Your task to perform on an android device: choose inbox layout in the gmail app Image 0: 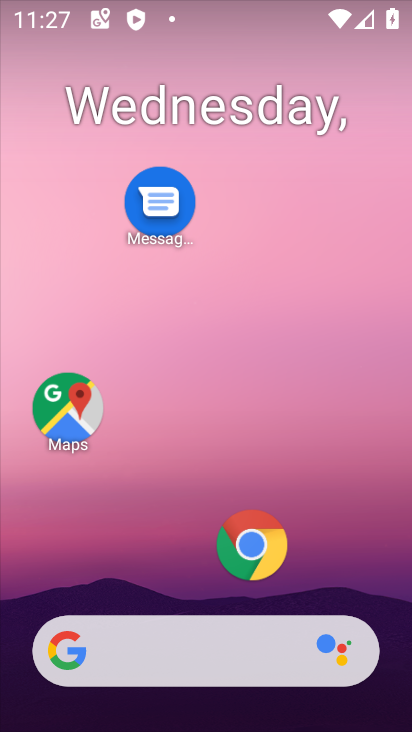
Step 0: drag from (181, 576) to (240, 157)
Your task to perform on an android device: choose inbox layout in the gmail app Image 1: 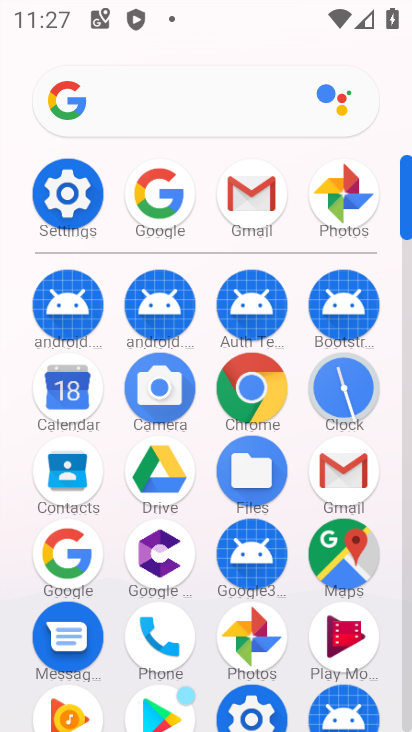
Step 1: click (248, 197)
Your task to perform on an android device: choose inbox layout in the gmail app Image 2: 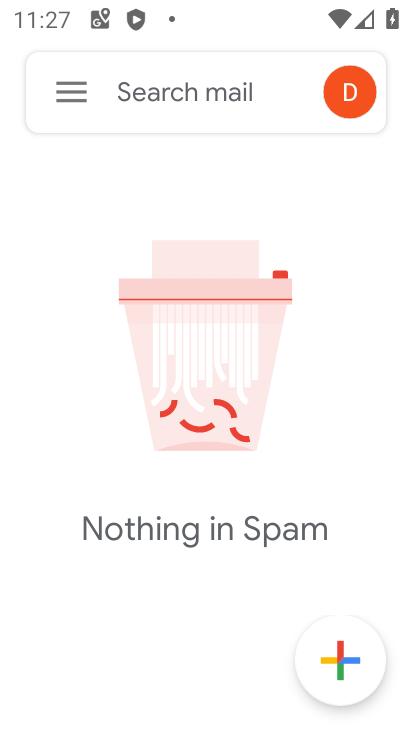
Step 2: click (53, 93)
Your task to perform on an android device: choose inbox layout in the gmail app Image 3: 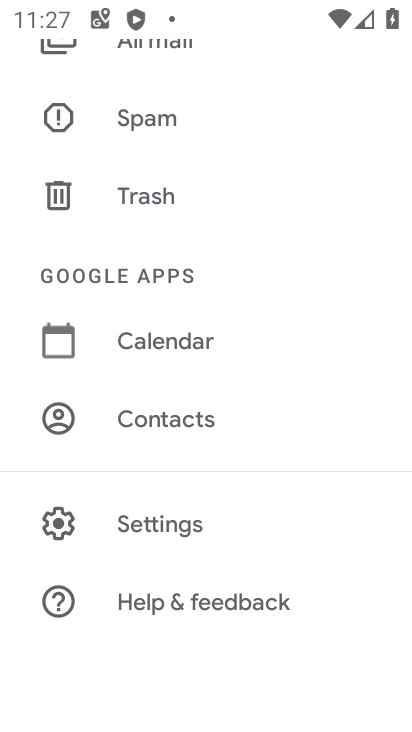
Step 3: click (181, 518)
Your task to perform on an android device: choose inbox layout in the gmail app Image 4: 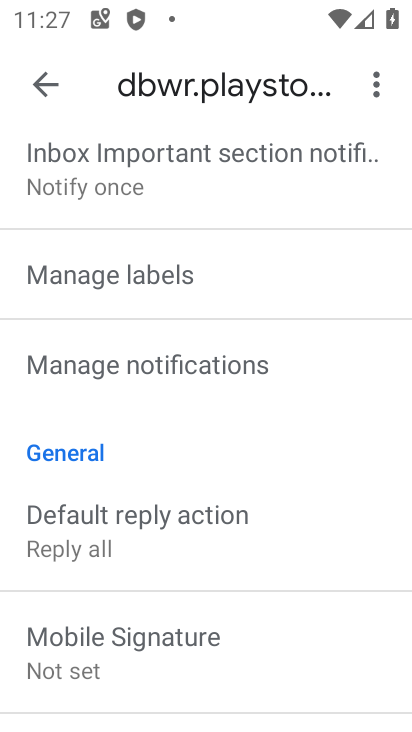
Step 4: drag from (182, 224) to (215, 544)
Your task to perform on an android device: choose inbox layout in the gmail app Image 5: 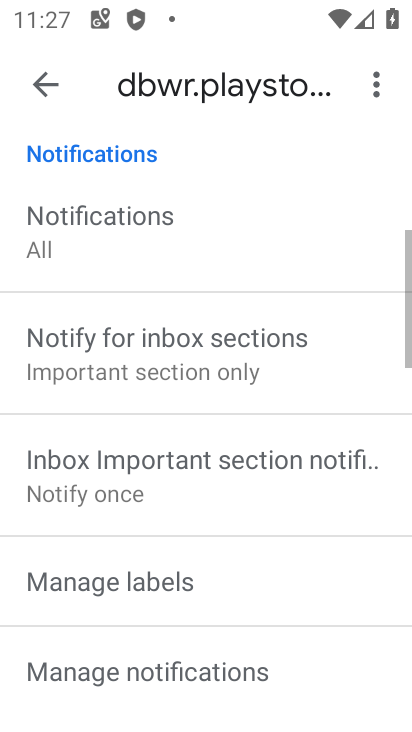
Step 5: drag from (179, 313) to (203, 548)
Your task to perform on an android device: choose inbox layout in the gmail app Image 6: 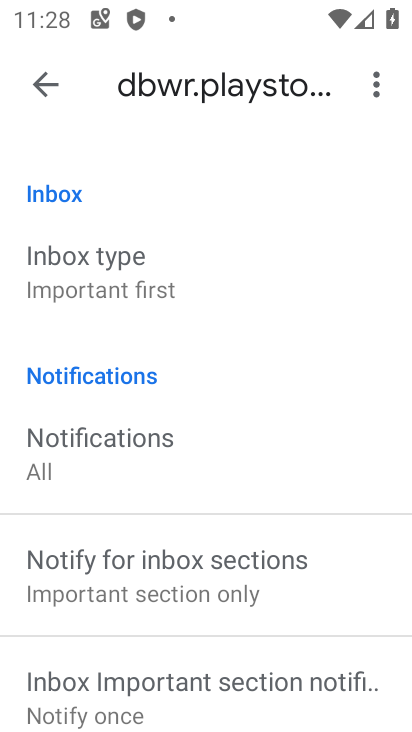
Step 6: drag from (195, 251) to (224, 467)
Your task to perform on an android device: choose inbox layout in the gmail app Image 7: 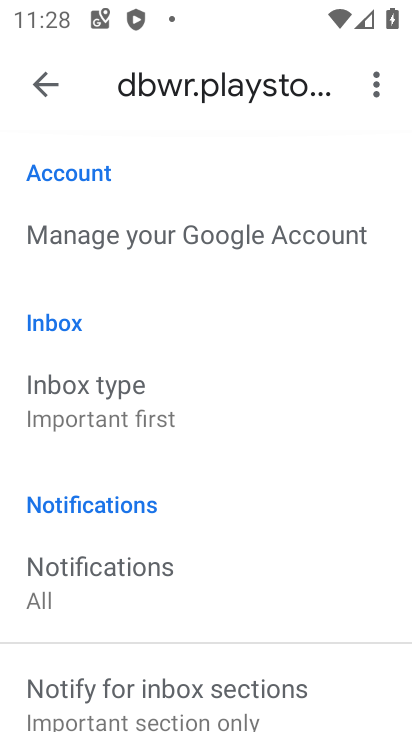
Step 7: click (109, 389)
Your task to perform on an android device: choose inbox layout in the gmail app Image 8: 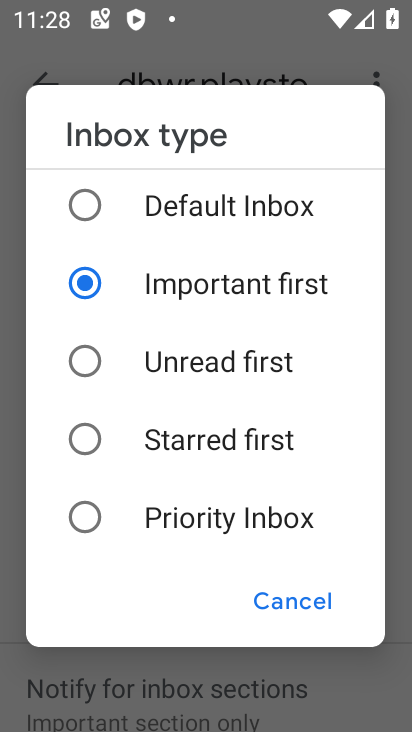
Step 8: click (126, 514)
Your task to perform on an android device: choose inbox layout in the gmail app Image 9: 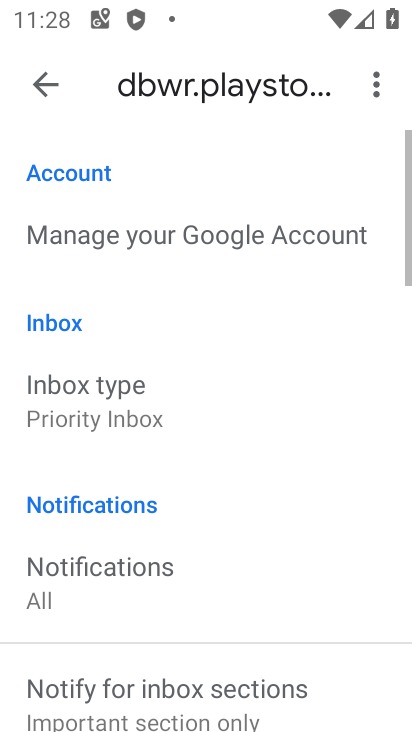
Step 9: task complete